Your task to perform on an android device: Go to Google Image 0: 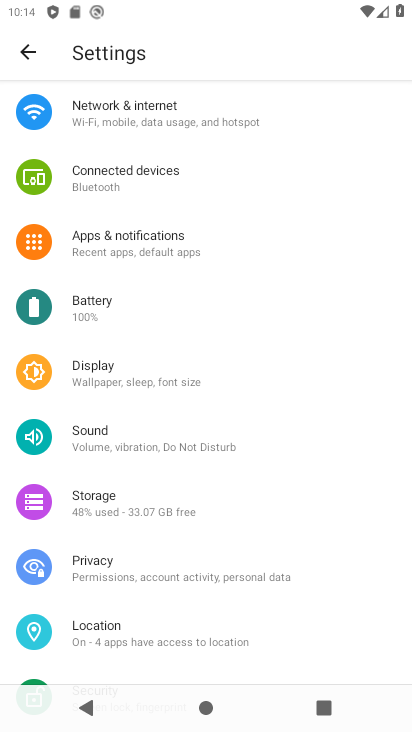
Step 0: press home button
Your task to perform on an android device: Go to Google Image 1: 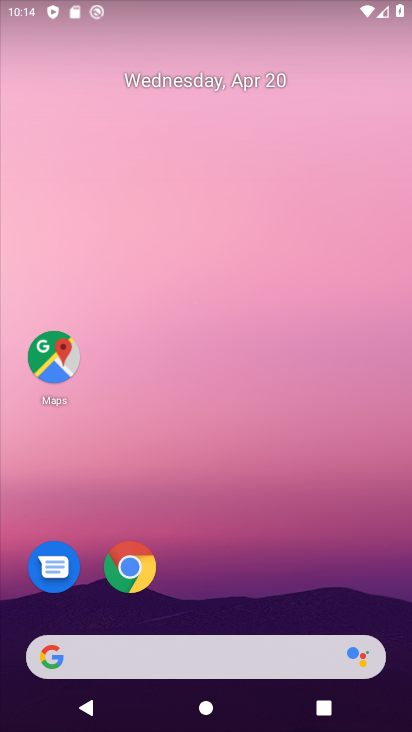
Step 1: drag from (297, 594) to (234, 16)
Your task to perform on an android device: Go to Google Image 2: 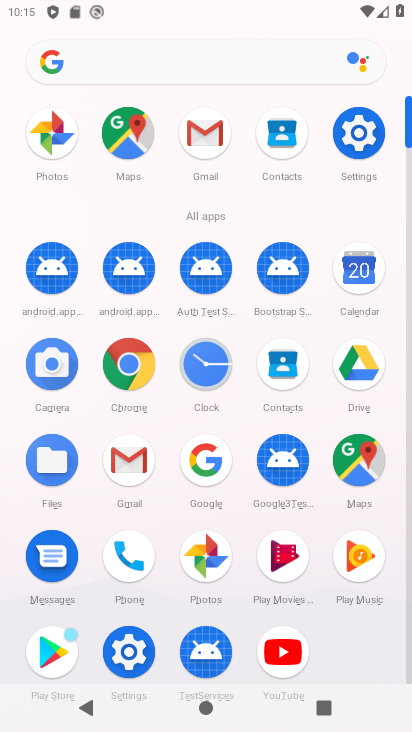
Step 2: click (204, 474)
Your task to perform on an android device: Go to Google Image 3: 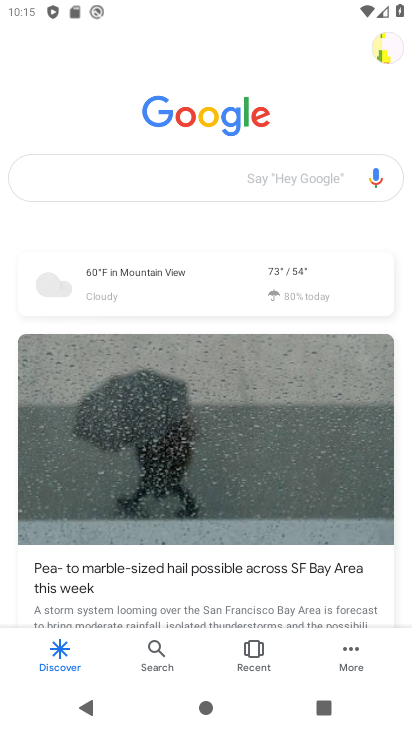
Step 3: task complete